Your task to perform on an android device: Search for Mexican restaurants on Maps Image 0: 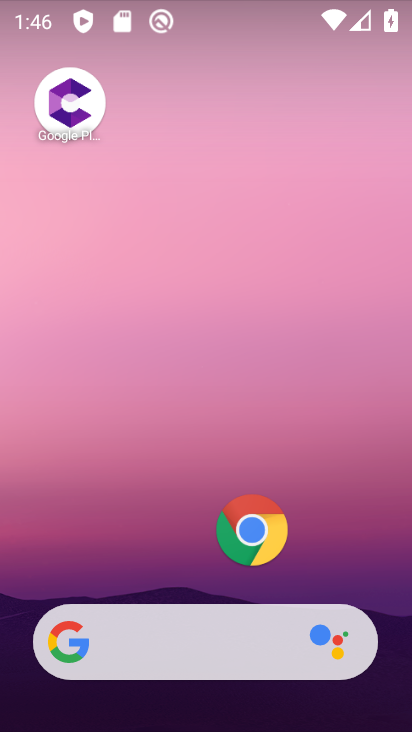
Step 0: drag from (220, 631) to (292, 114)
Your task to perform on an android device: Search for Mexican restaurants on Maps Image 1: 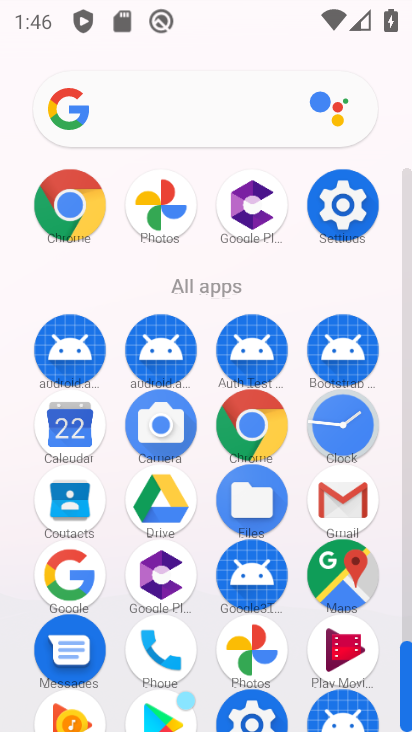
Step 1: click (313, 585)
Your task to perform on an android device: Search for Mexican restaurants on Maps Image 2: 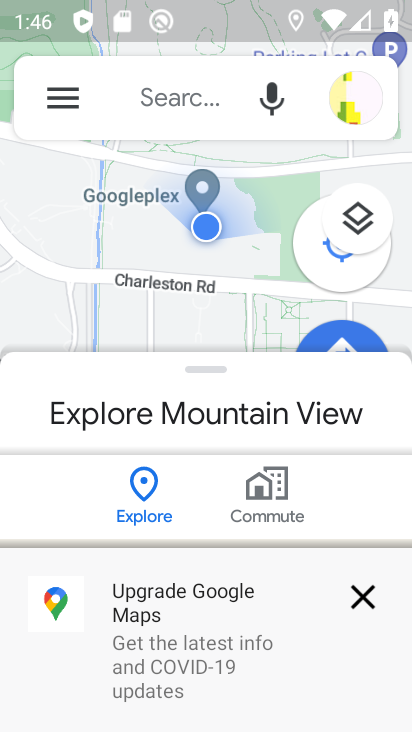
Step 2: click (160, 110)
Your task to perform on an android device: Search for Mexican restaurants on Maps Image 3: 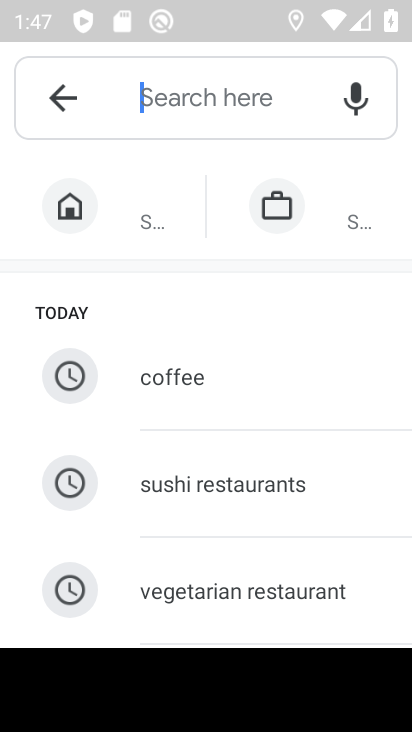
Step 3: type "mexican restaurants"
Your task to perform on an android device: Search for Mexican restaurants on Maps Image 4: 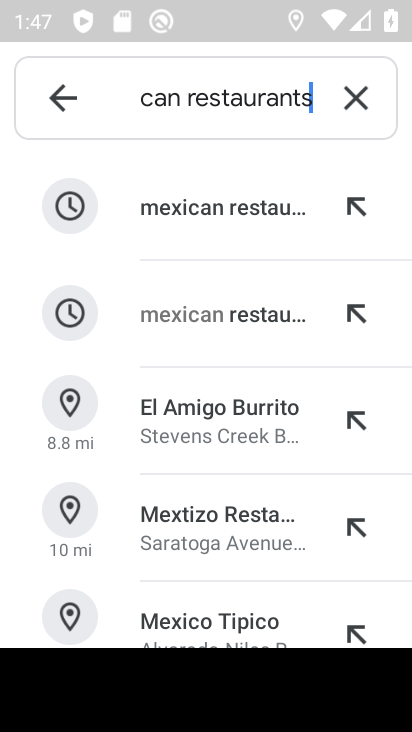
Step 4: click (202, 236)
Your task to perform on an android device: Search for Mexican restaurants on Maps Image 5: 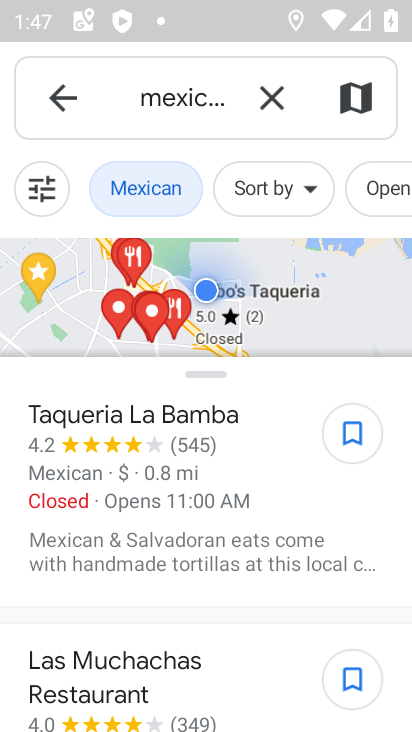
Step 5: task complete